Your task to perform on an android device: check google app version Image 0: 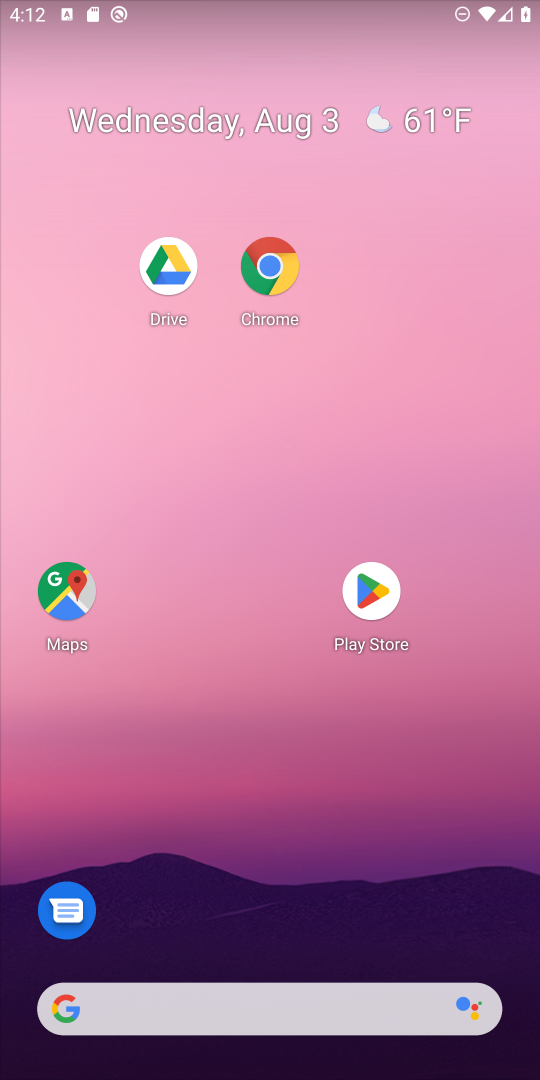
Step 0: drag from (372, 624) to (385, 40)
Your task to perform on an android device: check google app version Image 1: 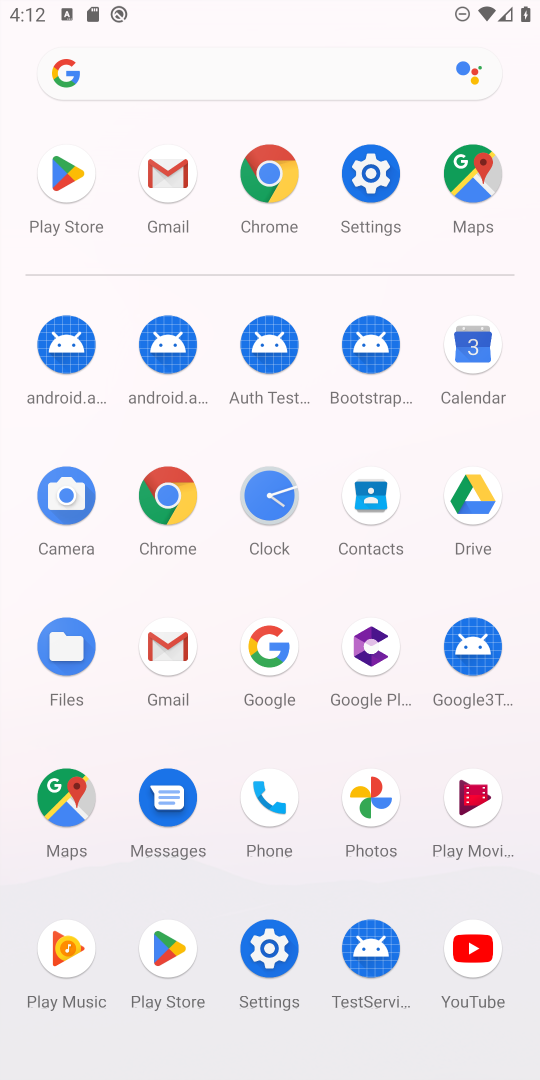
Step 1: click (261, 644)
Your task to perform on an android device: check google app version Image 2: 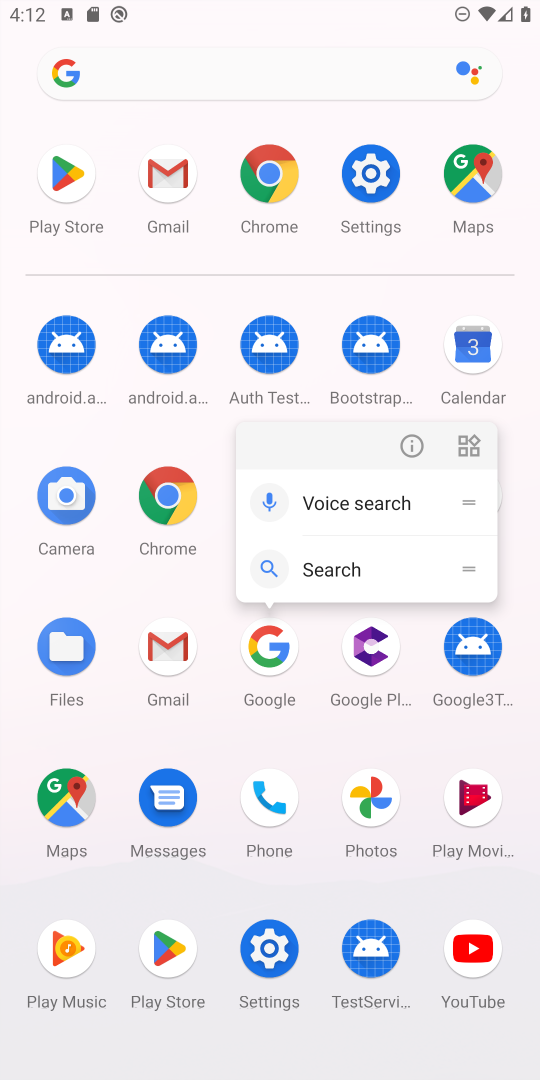
Step 2: click (258, 651)
Your task to perform on an android device: check google app version Image 3: 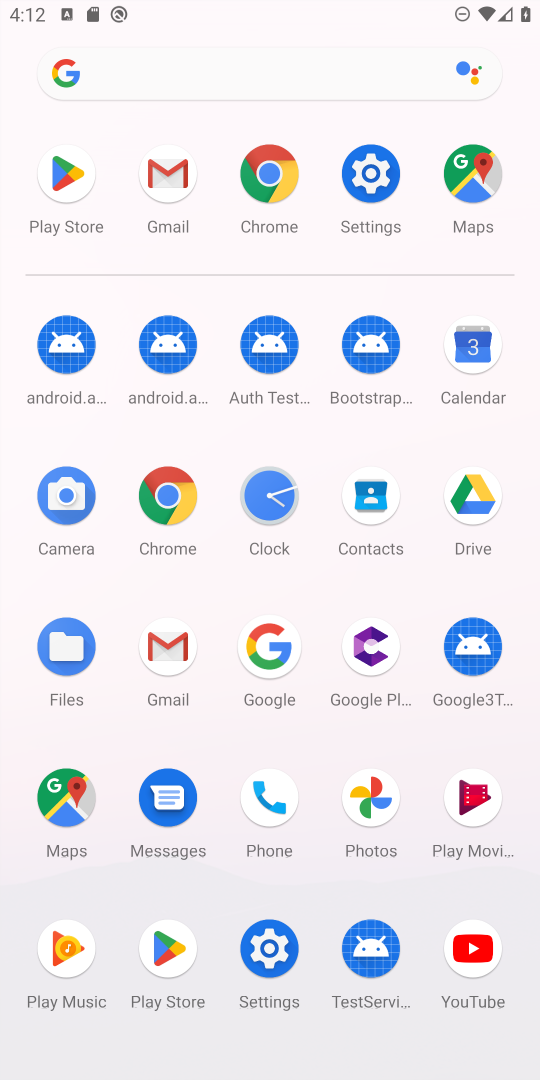
Step 3: click (258, 651)
Your task to perform on an android device: check google app version Image 4: 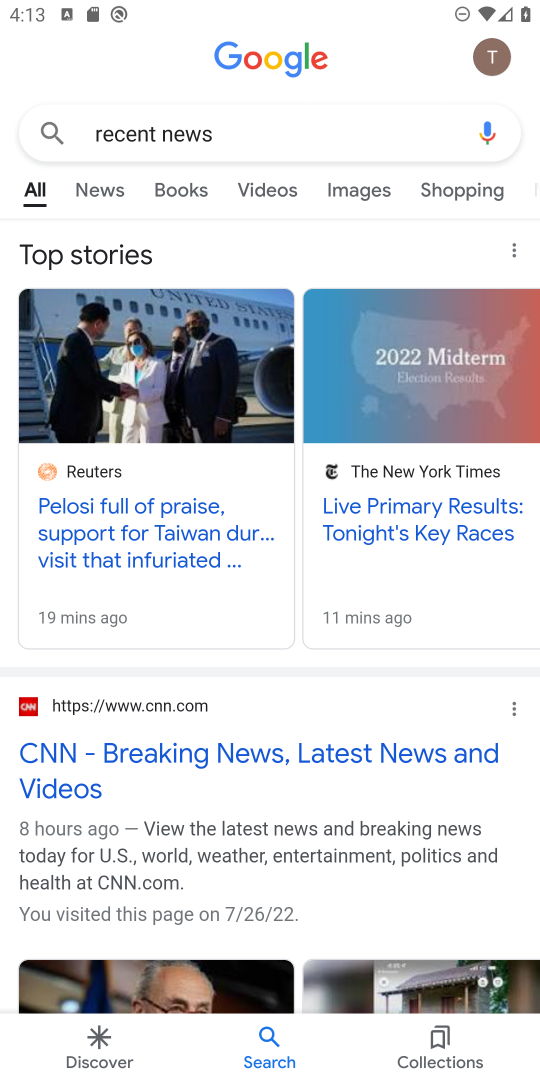
Step 4: click (501, 60)
Your task to perform on an android device: check google app version Image 5: 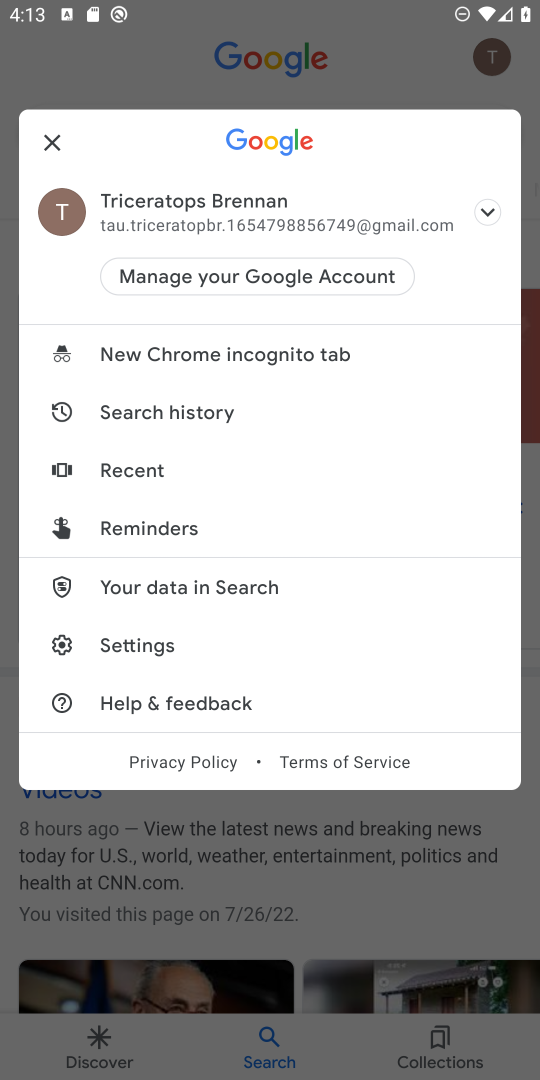
Step 5: click (212, 697)
Your task to perform on an android device: check google app version Image 6: 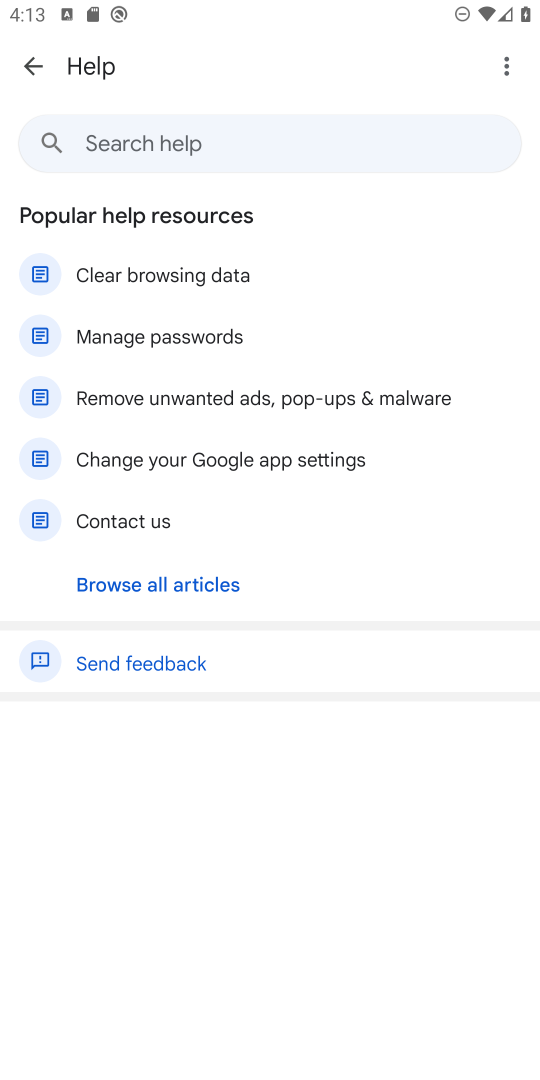
Step 6: click (522, 55)
Your task to perform on an android device: check google app version Image 7: 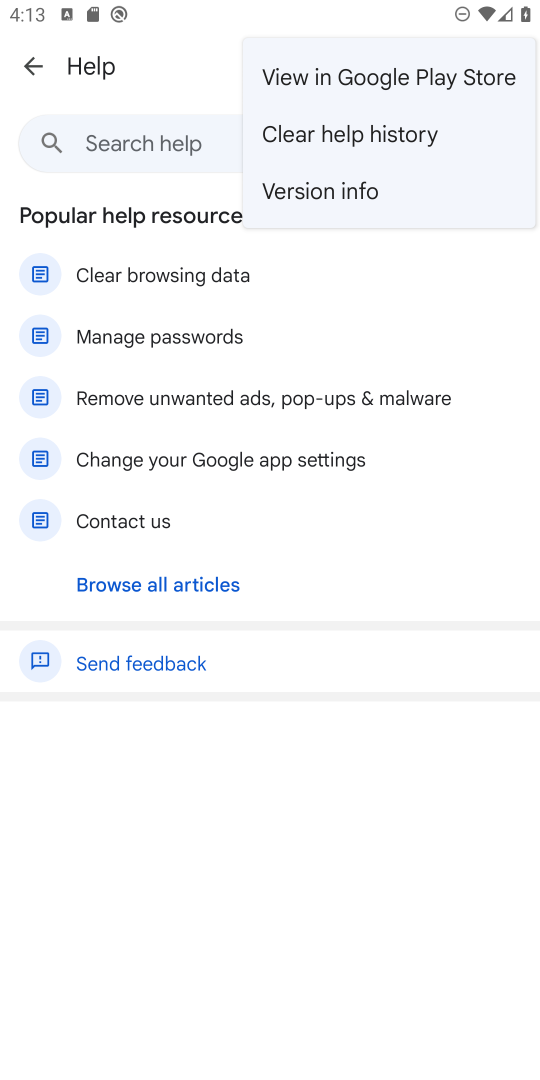
Step 7: click (332, 192)
Your task to perform on an android device: check google app version Image 8: 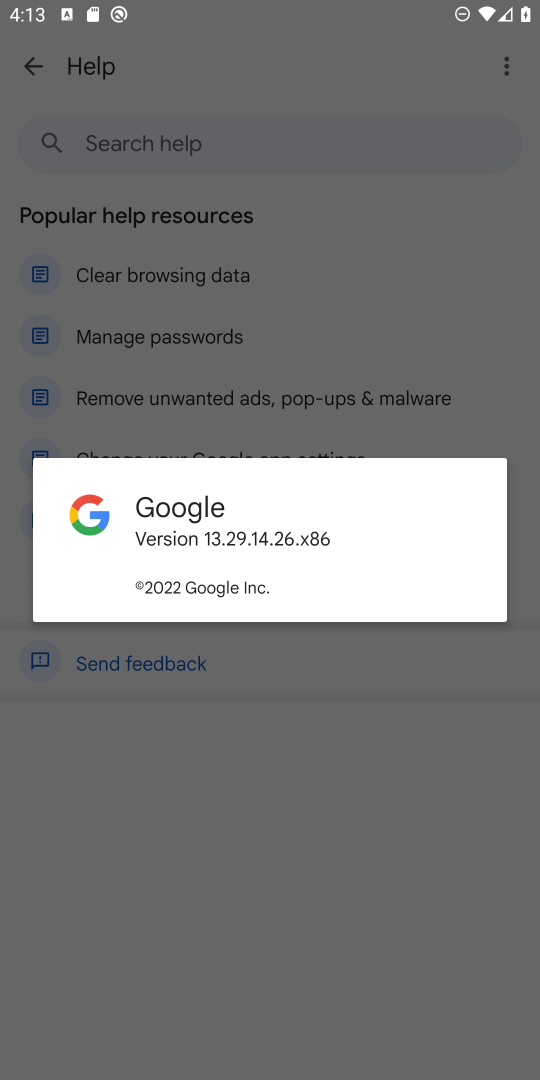
Step 8: task complete